Your task to perform on an android device: Open notification settings Image 0: 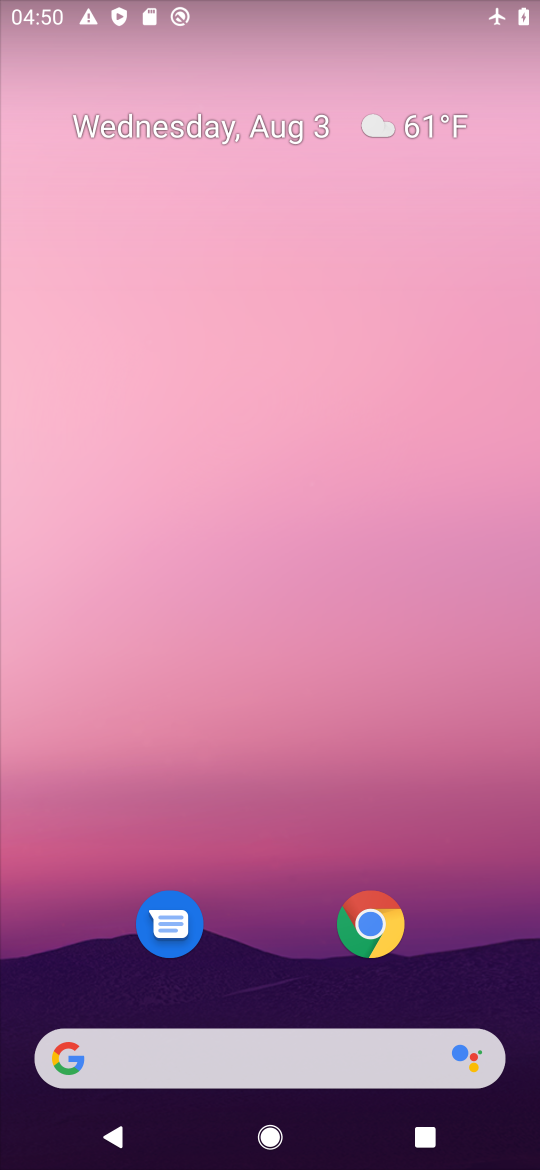
Step 0: drag from (259, 831) to (259, 254)
Your task to perform on an android device: Open notification settings Image 1: 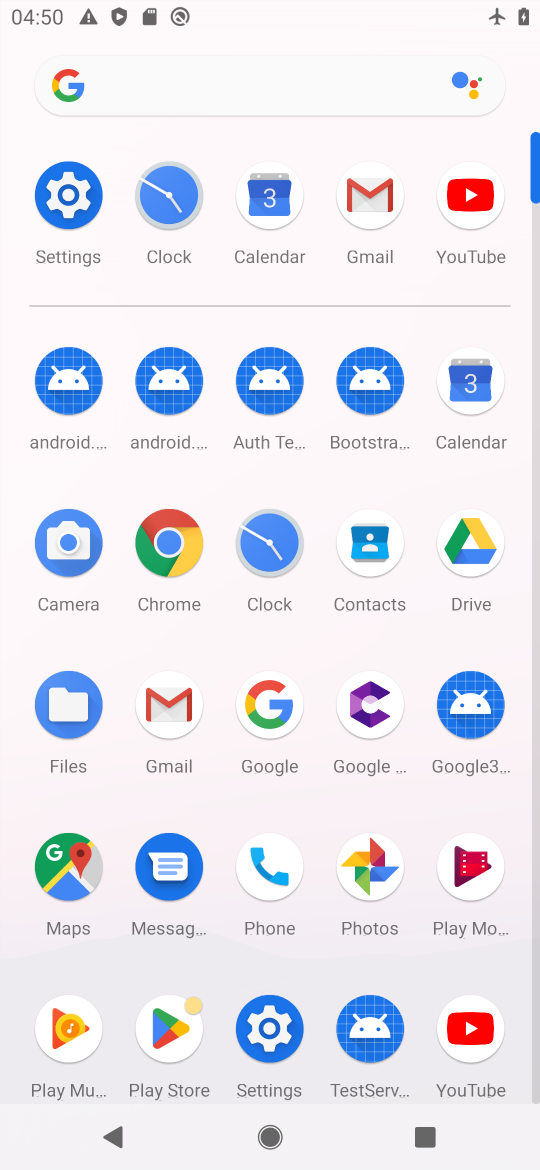
Step 1: click (88, 211)
Your task to perform on an android device: Open notification settings Image 2: 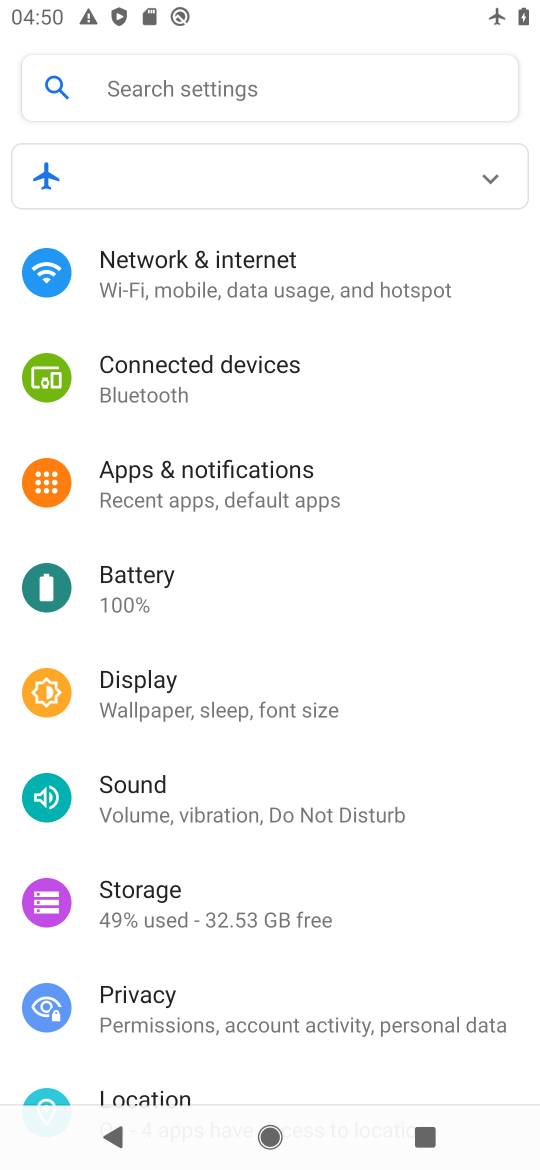
Step 2: click (259, 488)
Your task to perform on an android device: Open notification settings Image 3: 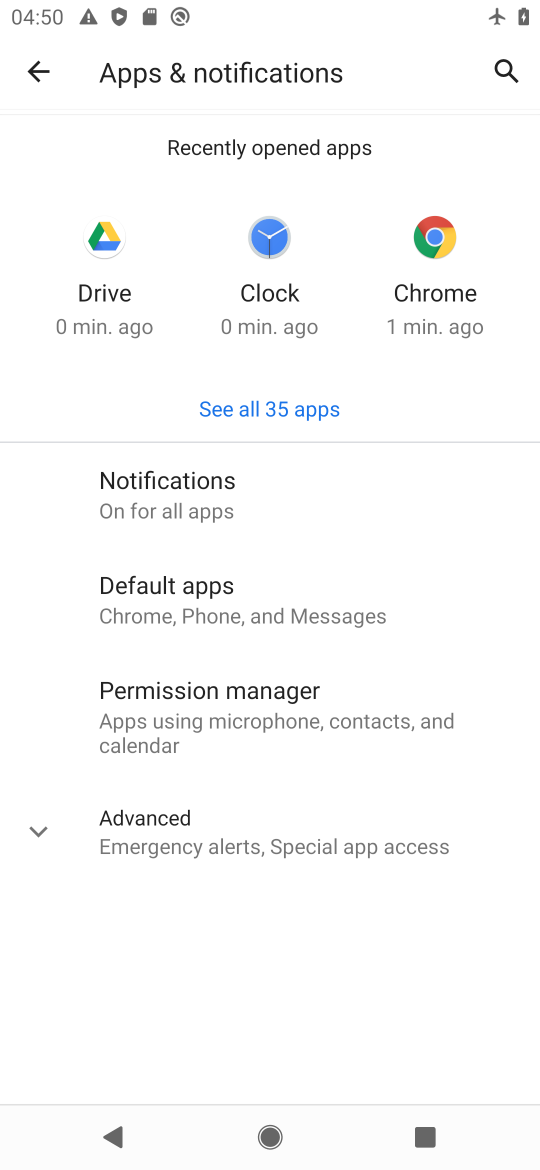
Step 3: click (259, 488)
Your task to perform on an android device: Open notification settings Image 4: 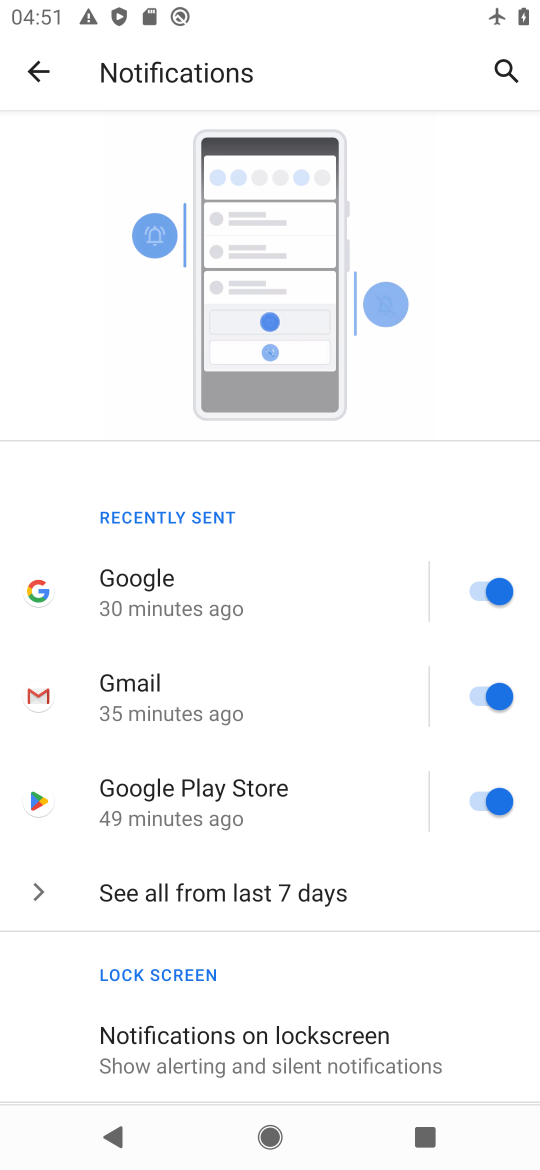
Step 4: task complete